Your task to perform on an android device: Open privacy settings Image 0: 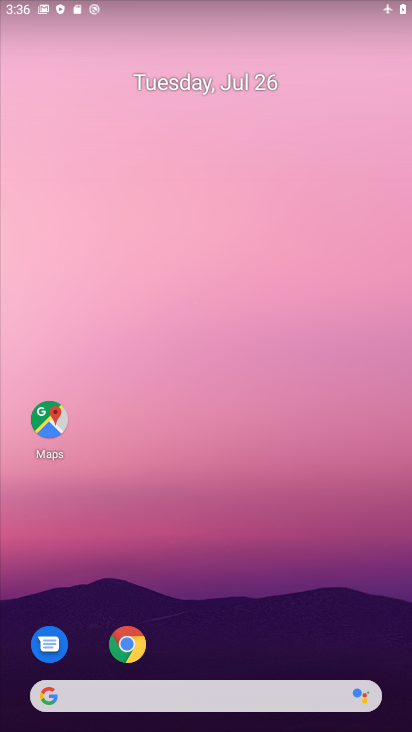
Step 0: drag from (376, 650) to (349, 118)
Your task to perform on an android device: Open privacy settings Image 1: 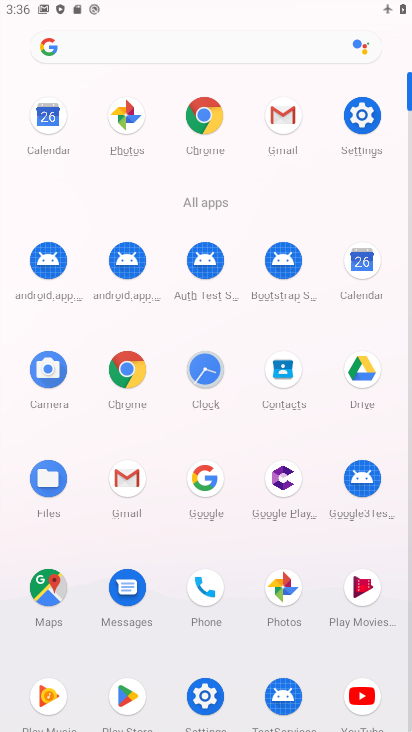
Step 1: click (206, 695)
Your task to perform on an android device: Open privacy settings Image 2: 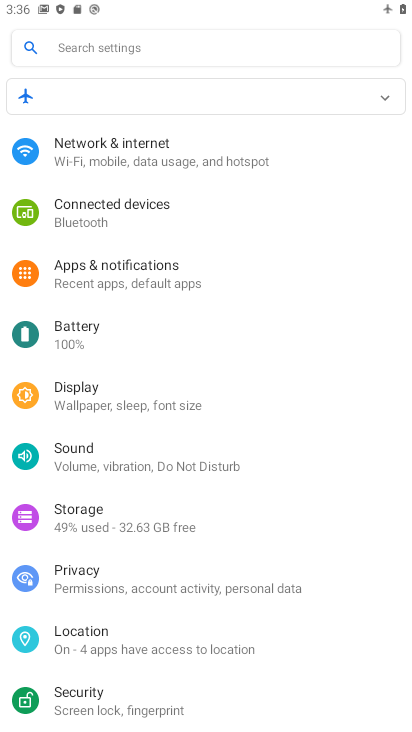
Step 2: click (85, 576)
Your task to perform on an android device: Open privacy settings Image 3: 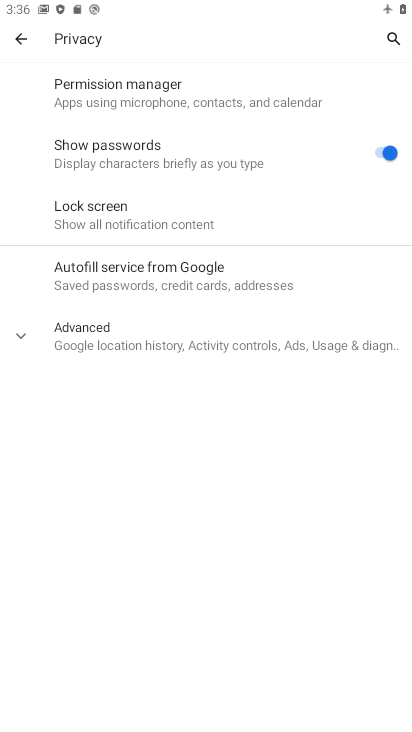
Step 3: click (16, 334)
Your task to perform on an android device: Open privacy settings Image 4: 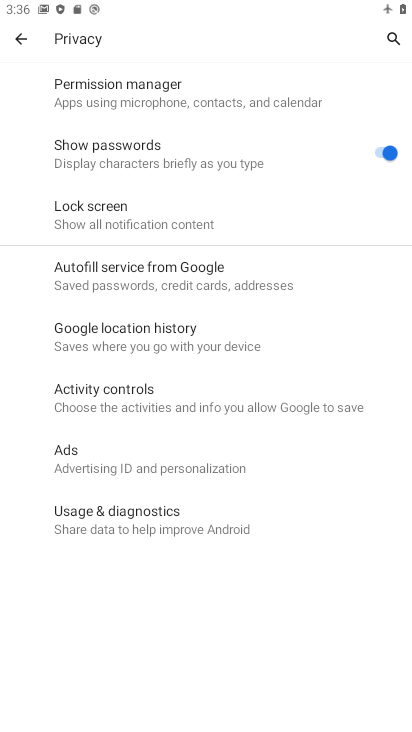
Step 4: task complete